Your task to perform on an android device: Open ESPN.com Image 0: 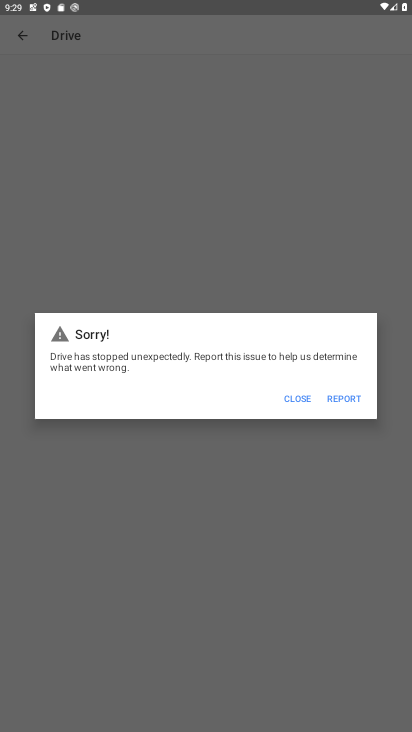
Step 0: press home button
Your task to perform on an android device: Open ESPN.com Image 1: 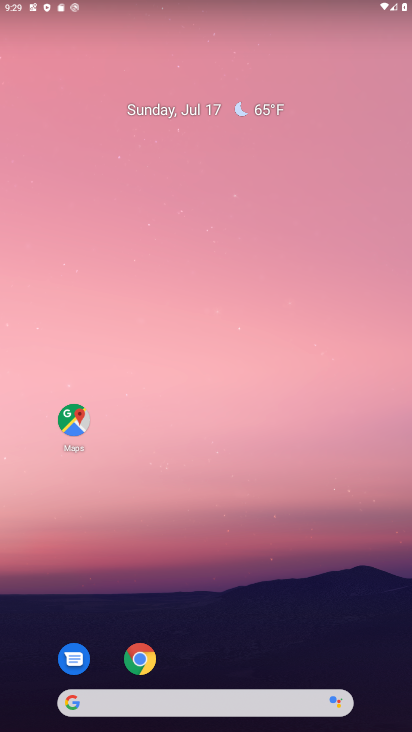
Step 1: click (249, 696)
Your task to perform on an android device: Open ESPN.com Image 2: 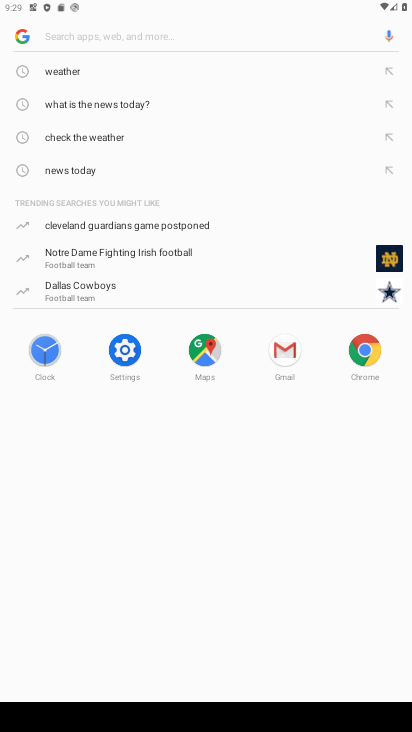
Step 2: type "espn"
Your task to perform on an android device: Open ESPN.com Image 3: 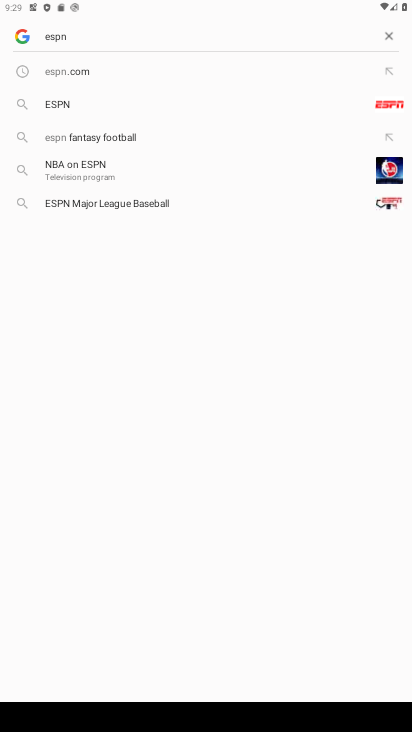
Step 3: click (184, 102)
Your task to perform on an android device: Open ESPN.com Image 4: 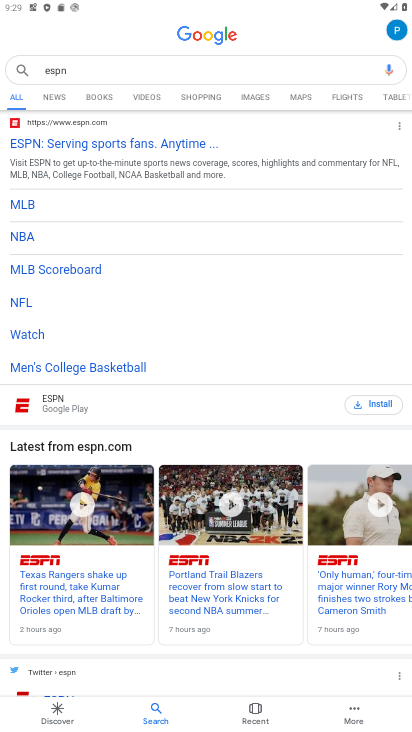
Step 4: task complete